Your task to perform on an android device: uninstall "Spotify" Image 0: 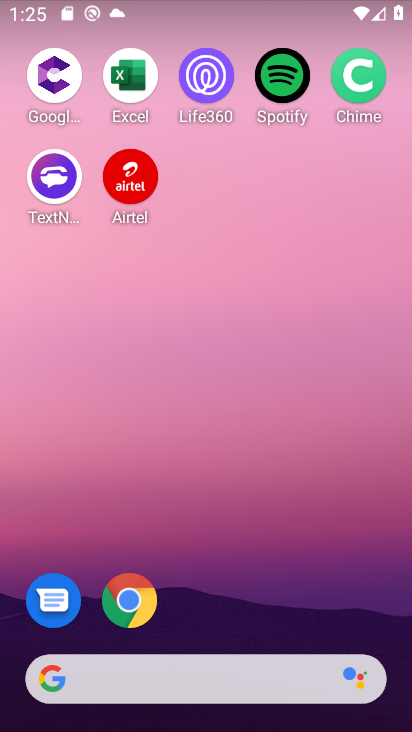
Step 0: drag from (275, 574) to (281, 479)
Your task to perform on an android device: uninstall "Spotify" Image 1: 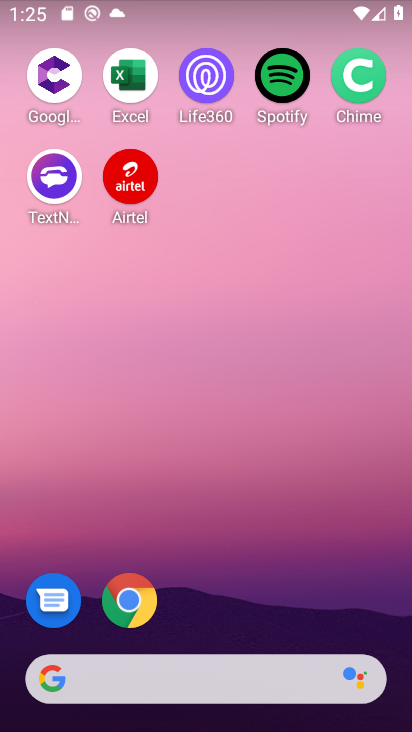
Step 1: click (282, 72)
Your task to perform on an android device: uninstall "Spotify" Image 2: 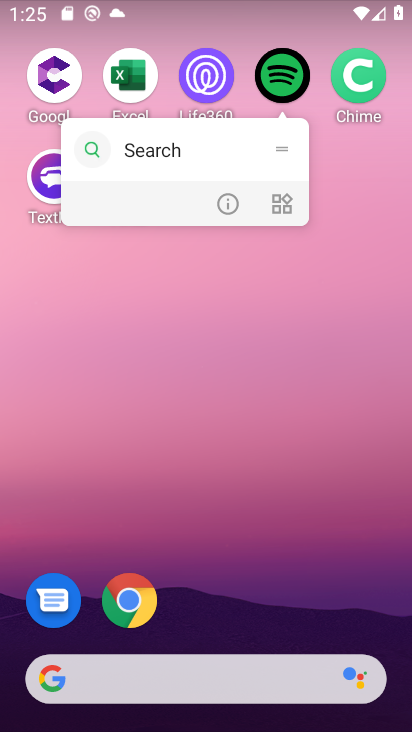
Step 2: click (240, 204)
Your task to perform on an android device: uninstall "Spotify" Image 3: 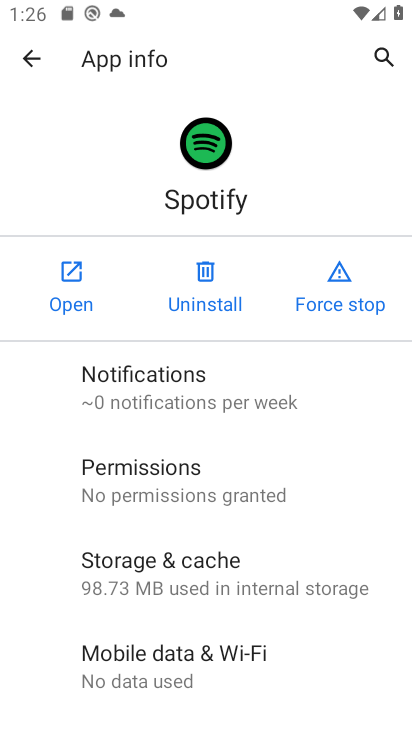
Step 3: click (213, 272)
Your task to perform on an android device: uninstall "Spotify" Image 4: 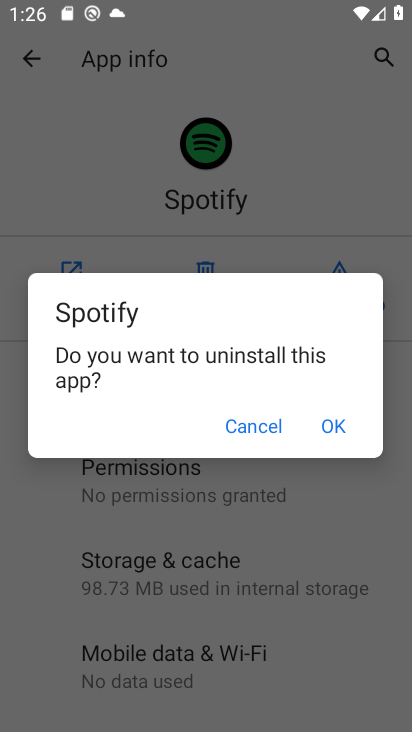
Step 4: click (340, 420)
Your task to perform on an android device: uninstall "Spotify" Image 5: 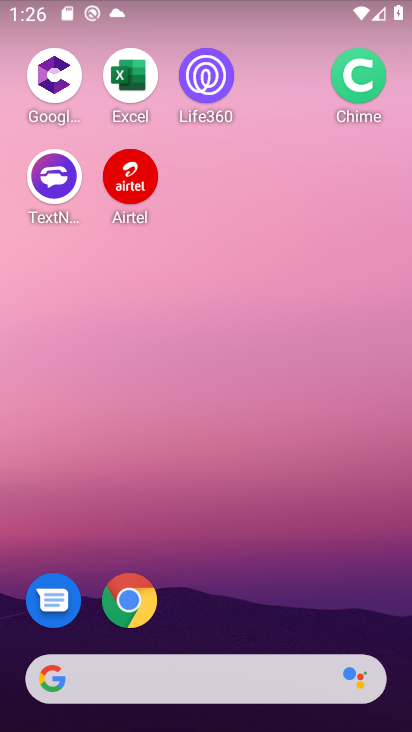
Step 5: task complete